Your task to perform on an android device: change the clock display to analog Image 0: 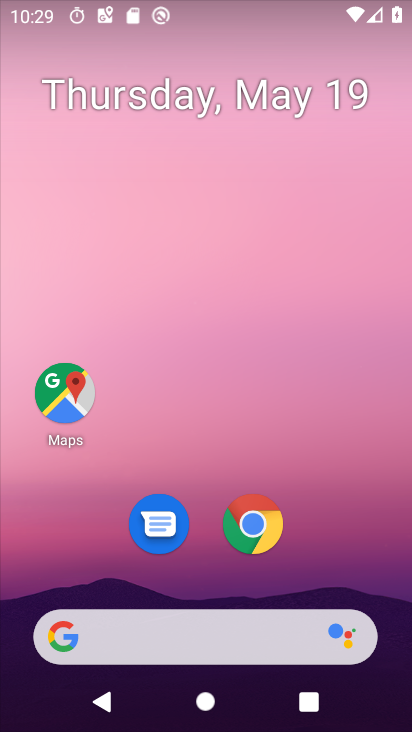
Step 0: drag from (231, 481) to (246, 62)
Your task to perform on an android device: change the clock display to analog Image 1: 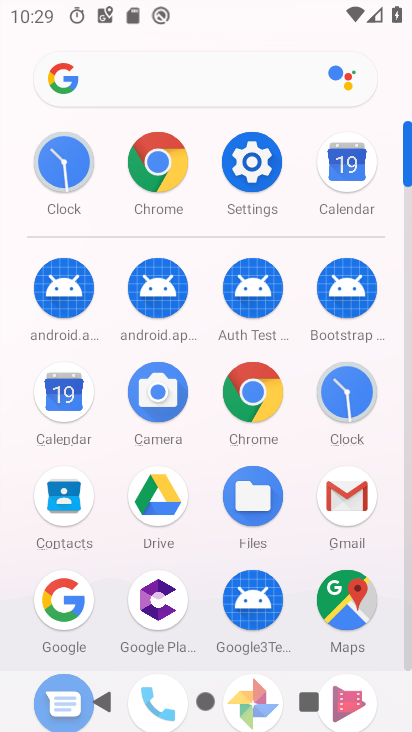
Step 1: click (63, 167)
Your task to perform on an android device: change the clock display to analog Image 2: 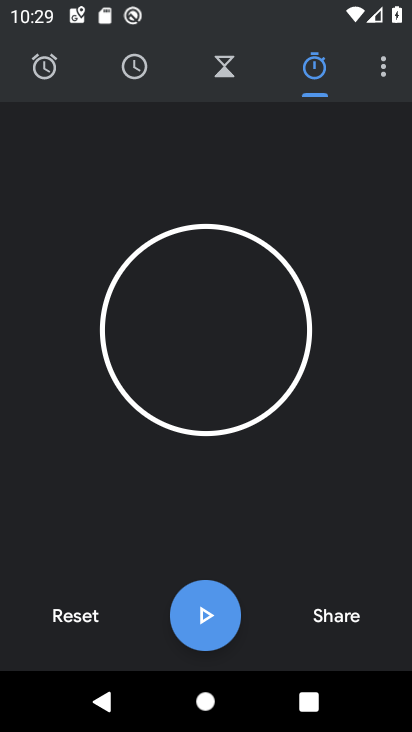
Step 2: click (50, 72)
Your task to perform on an android device: change the clock display to analog Image 3: 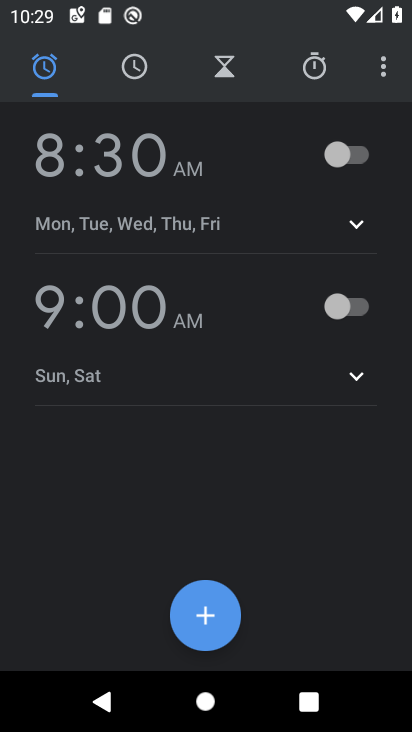
Step 3: click (124, 69)
Your task to perform on an android device: change the clock display to analog Image 4: 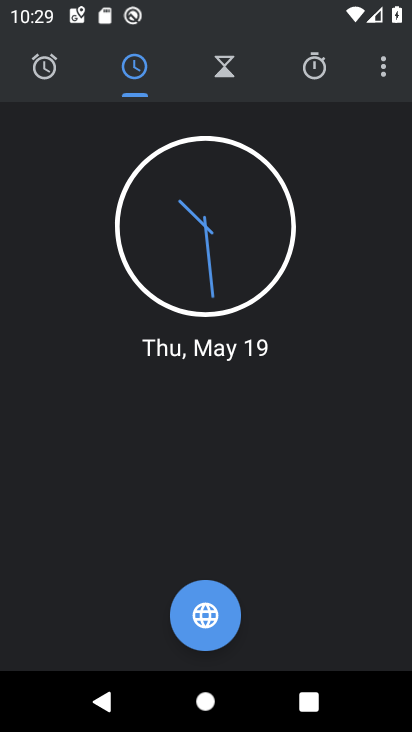
Step 4: task complete